Your task to perform on an android device: see sites visited before in the chrome app Image 0: 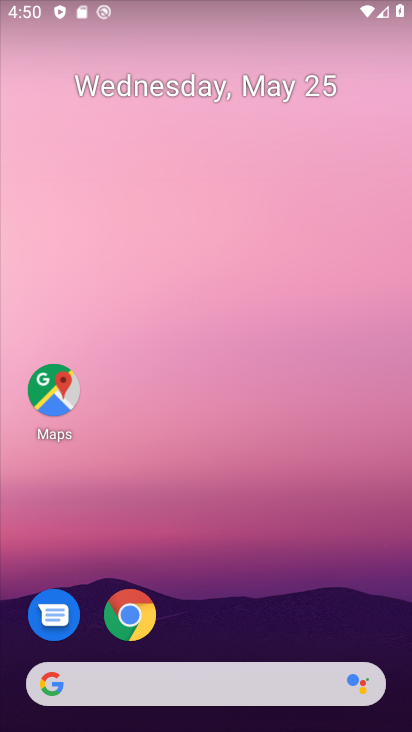
Step 0: click (148, 604)
Your task to perform on an android device: see sites visited before in the chrome app Image 1: 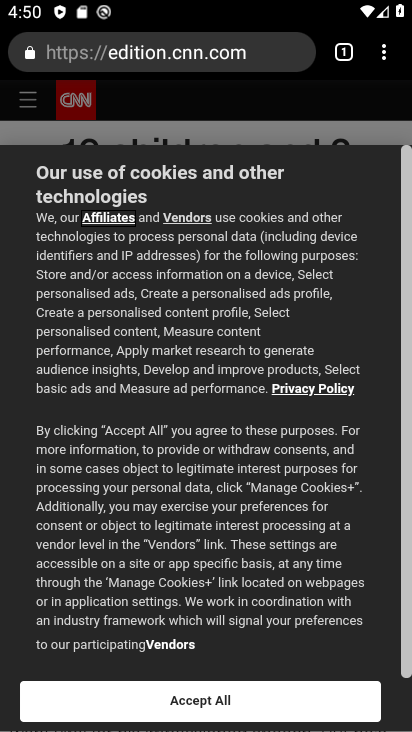
Step 1: task complete